Your task to perform on an android device: Search for sushi restaurants on Maps Image 0: 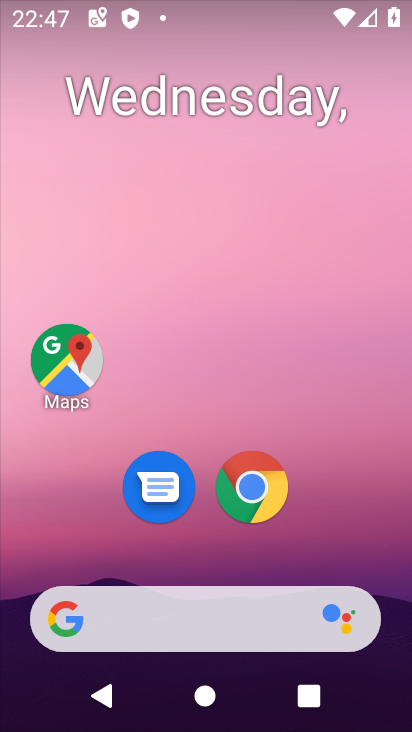
Step 0: click (63, 353)
Your task to perform on an android device: Search for sushi restaurants on Maps Image 1: 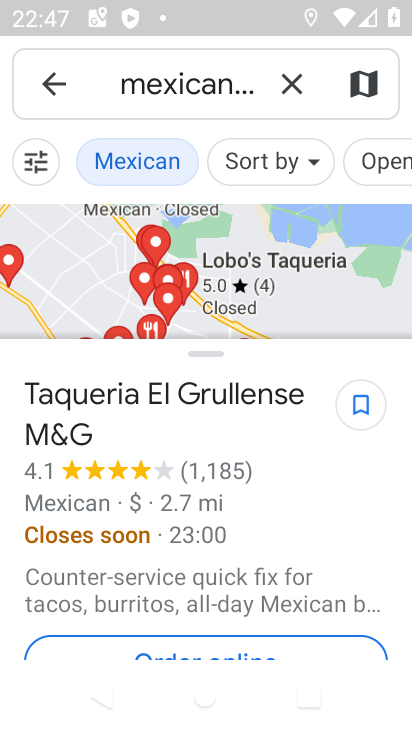
Step 1: click (294, 89)
Your task to perform on an android device: Search for sushi restaurants on Maps Image 2: 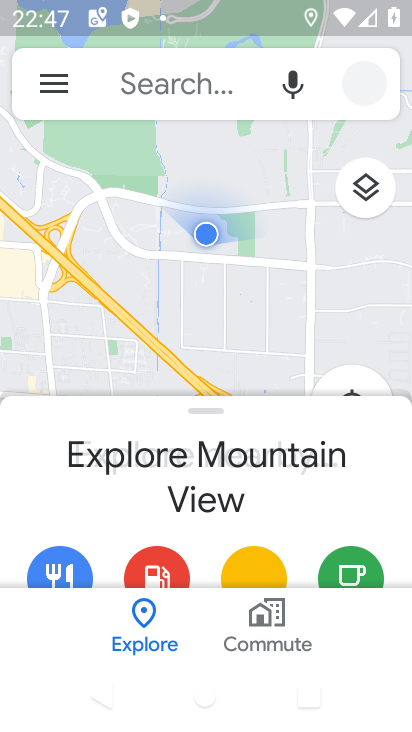
Step 2: click (121, 96)
Your task to perform on an android device: Search for sushi restaurants on Maps Image 3: 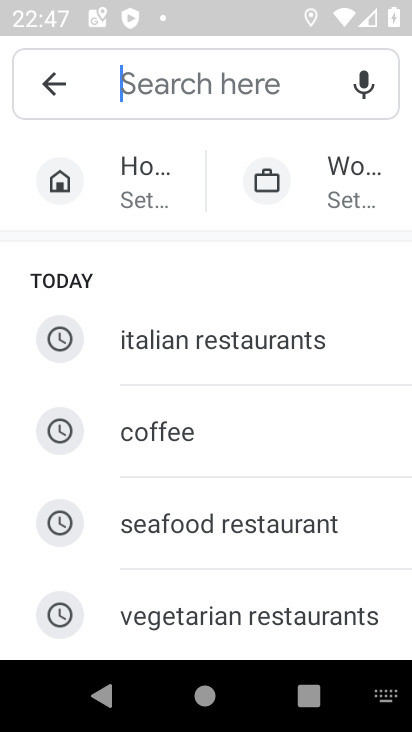
Step 3: drag from (231, 423) to (271, 39)
Your task to perform on an android device: Search for sushi restaurants on Maps Image 4: 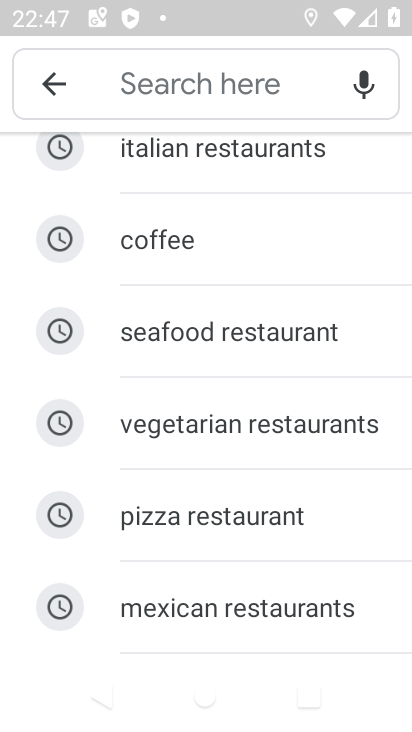
Step 4: drag from (322, 297) to (339, 554)
Your task to perform on an android device: Search for sushi restaurants on Maps Image 5: 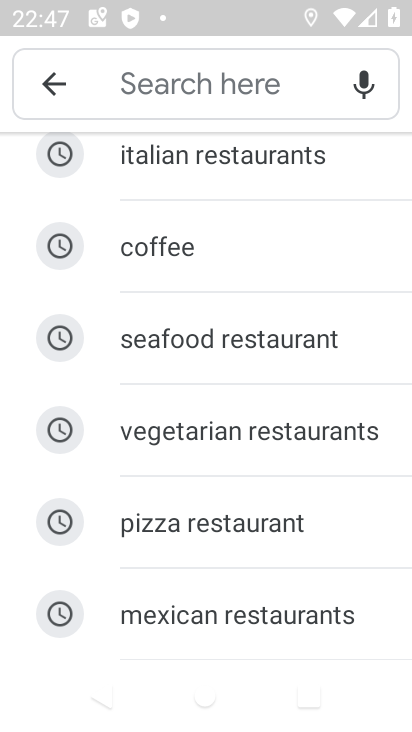
Step 5: click (201, 94)
Your task to perform on an android device: Search for sushi restaurants on Maps Image 6: 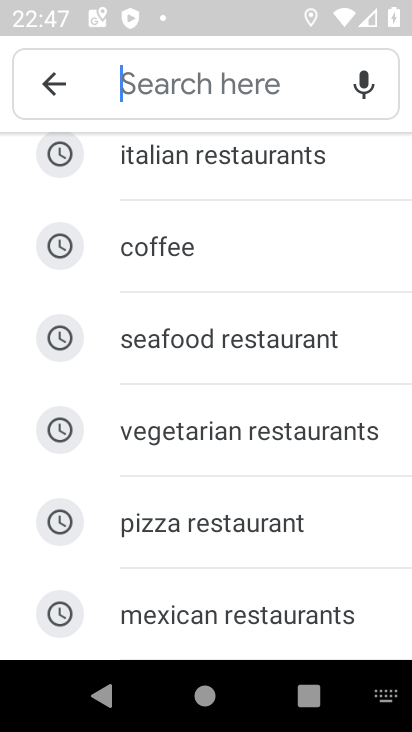
Step 6: type "sushi "
Your task to perform on an android device: Search for sushi restaurants on Maps Image 7: 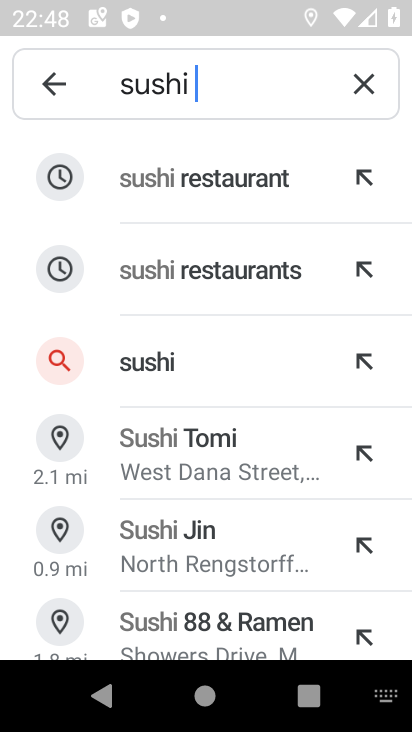
Step 7: click (281, 184)
Your task to perform on an android device: Search for sushi restaurants on Maps Image 8: 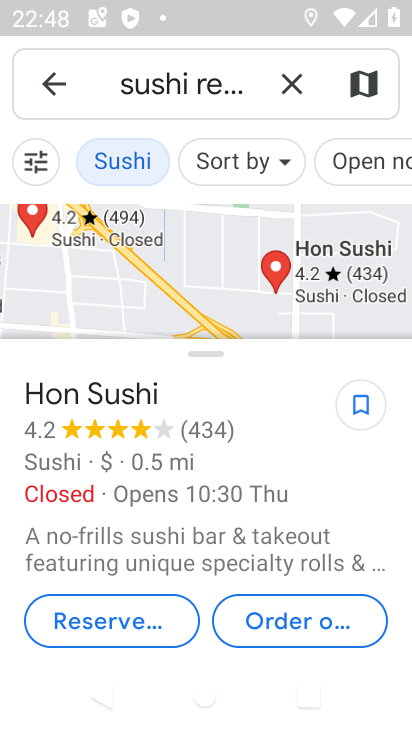
Step 8: task complete